Your task to perform on an android device: Open display settings Image 0: 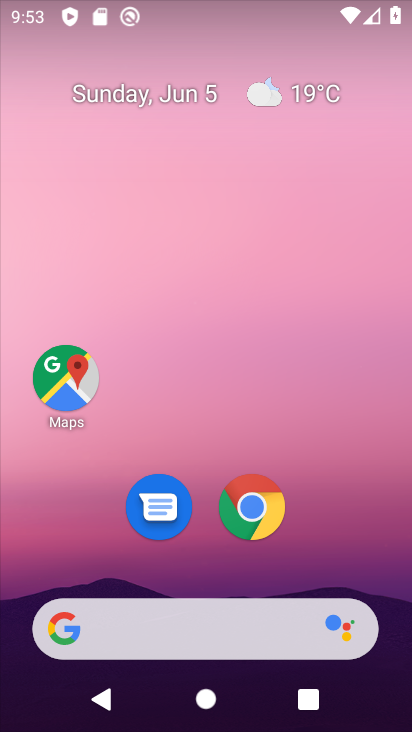
Step 0: drag from (223, 464) to (250, 144)
Your task to perform on an android device: Open display settings Image 1: 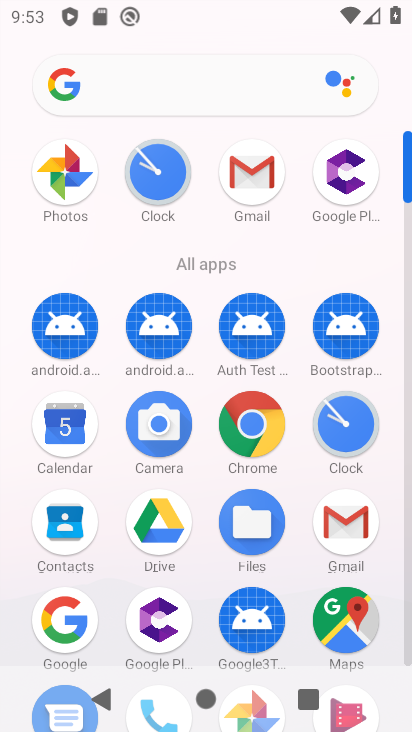
Step 1: drag from (202, 632) to (289, 35)
Your task to perform on an android device: Open display settings Image 2: 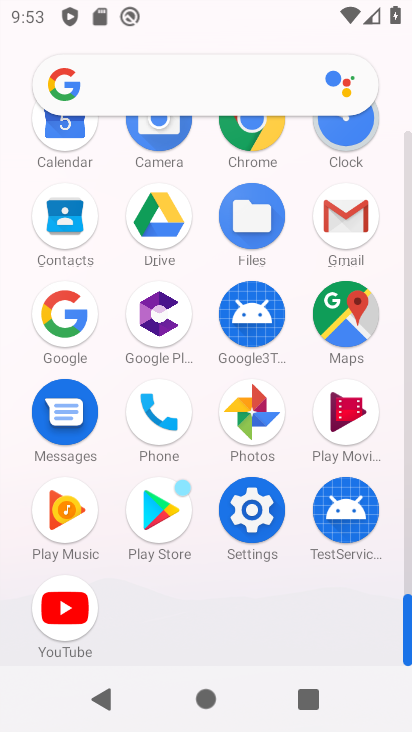
Step 2: click (263, 485)
Your task to perform on an android device: Open display settings Image 3: 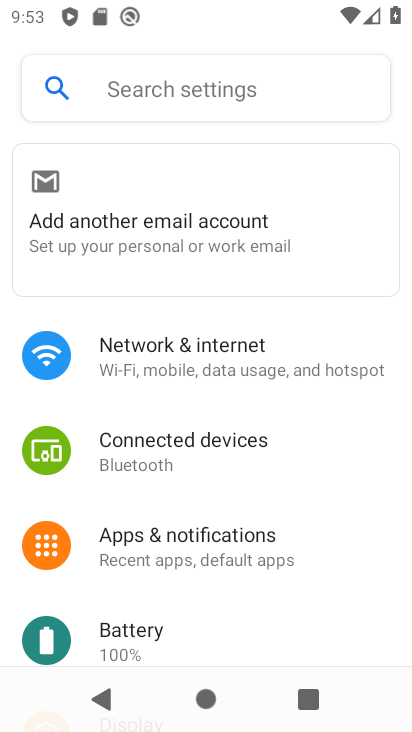
Step 3: drag from (214, 629) to (204, 169)
Your task to perform on an android device: Open display settings Image 4: 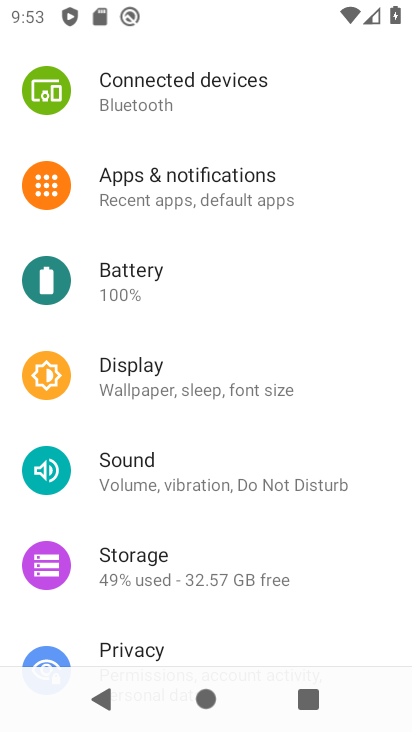
Step 4: click (190, 392)
Your task to perform on an android device: Open display settings Image 5: 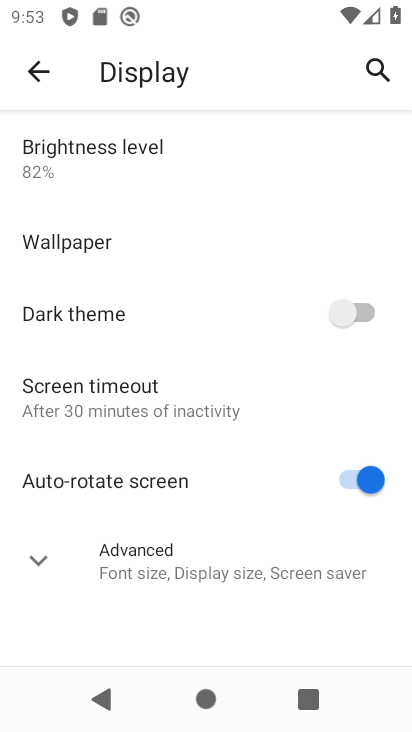
Step 5: task complete